Your task to perform on an android device: install app "Google Drive" Image 0: 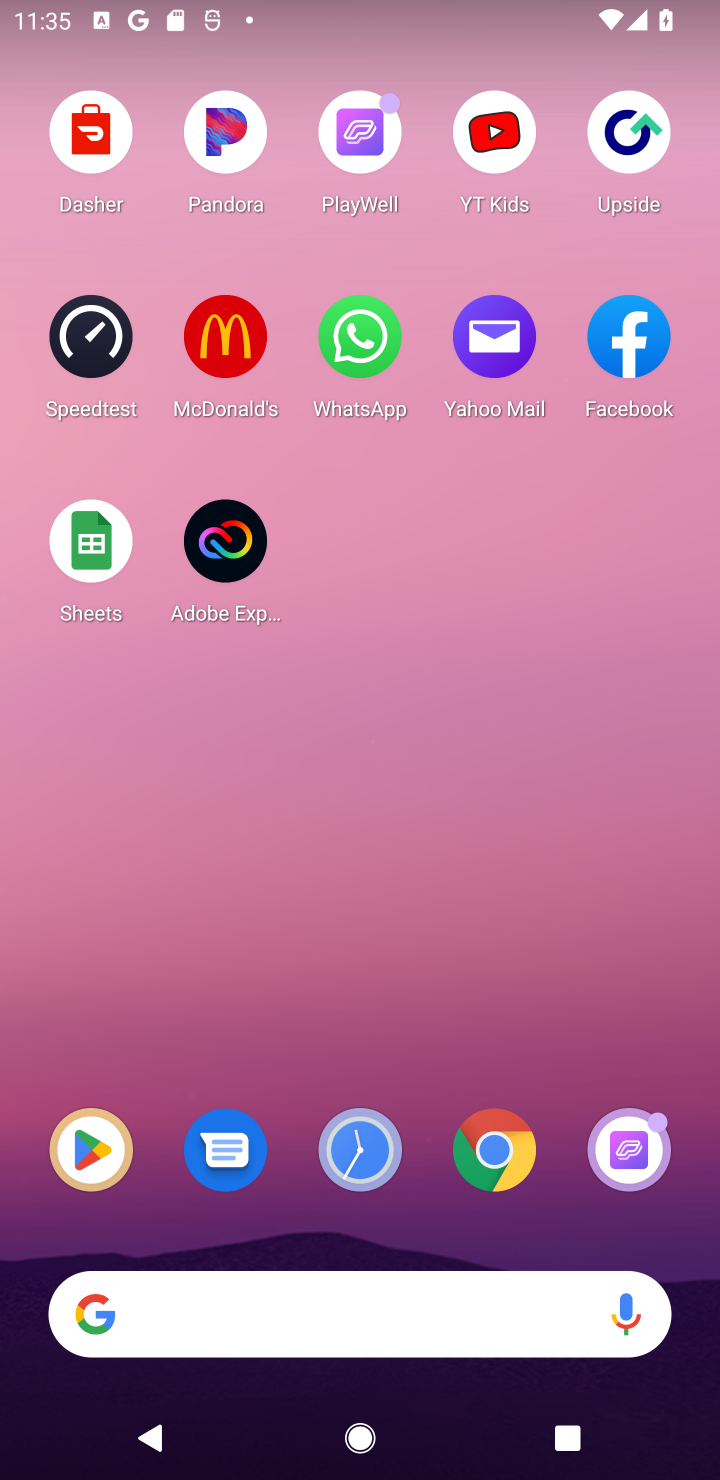
Step 0: click (99, 1159)
Your task to perform on an android device: install app "Google Drive" Image 1: 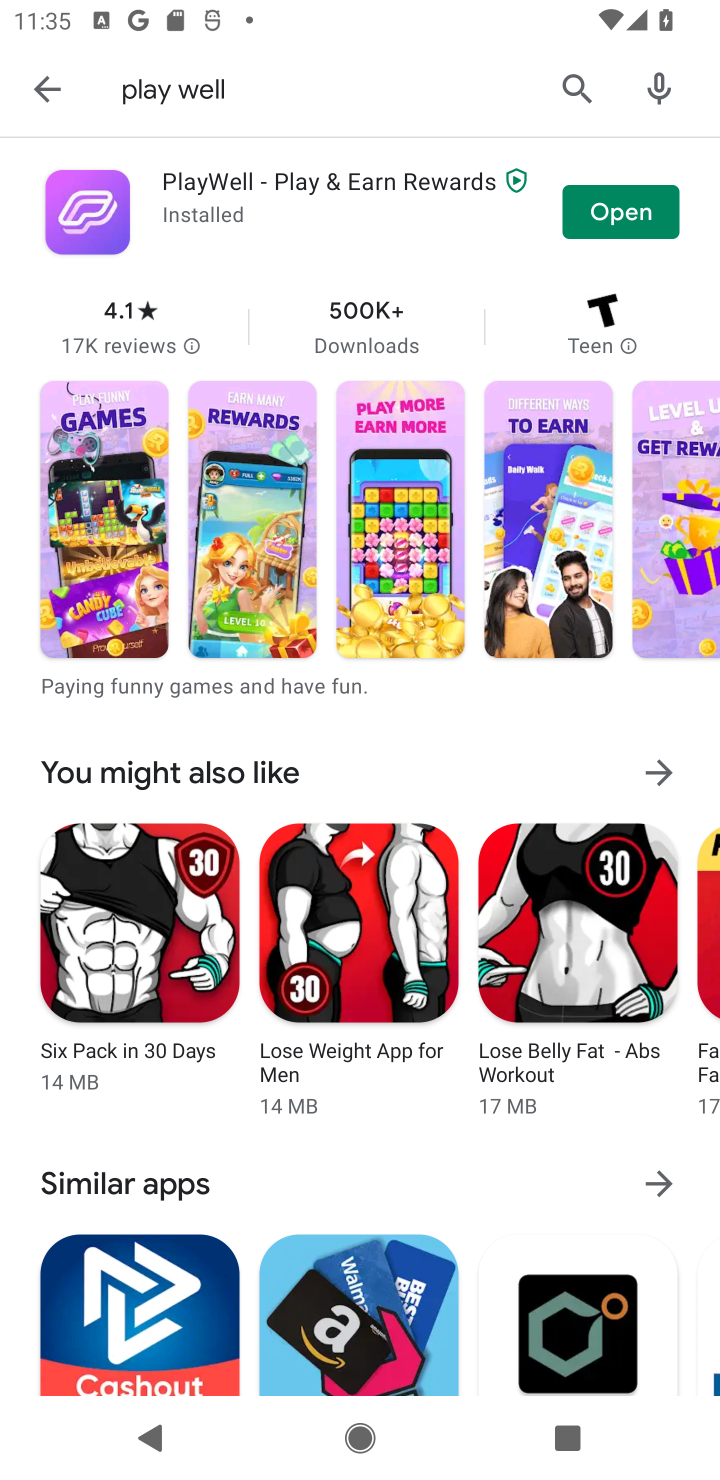
Step 1: click (593, 87)
Your task to perform on an android device: install app "Google Drive" Image 2: 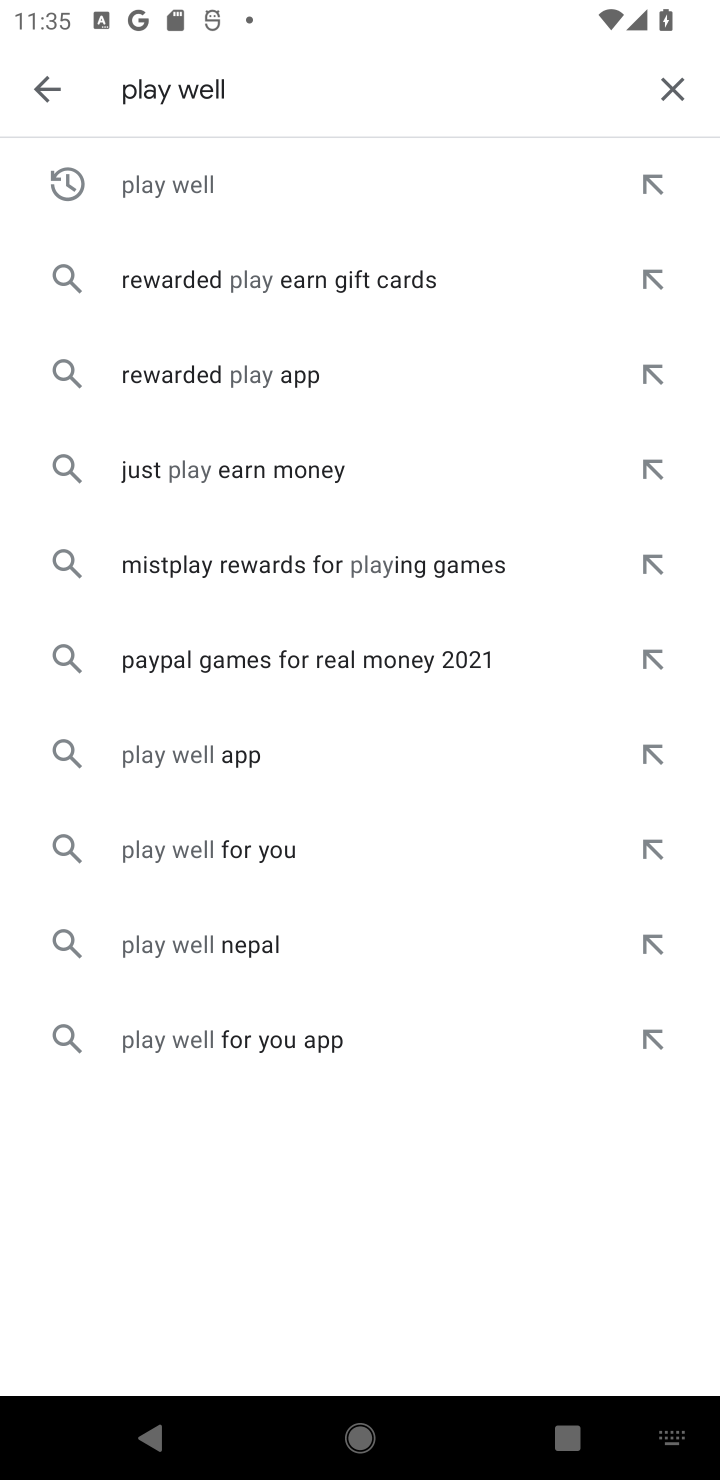
Step 2: click (659, 80)
Your task to perform on an android device: install app "Google Drive" Image 3: 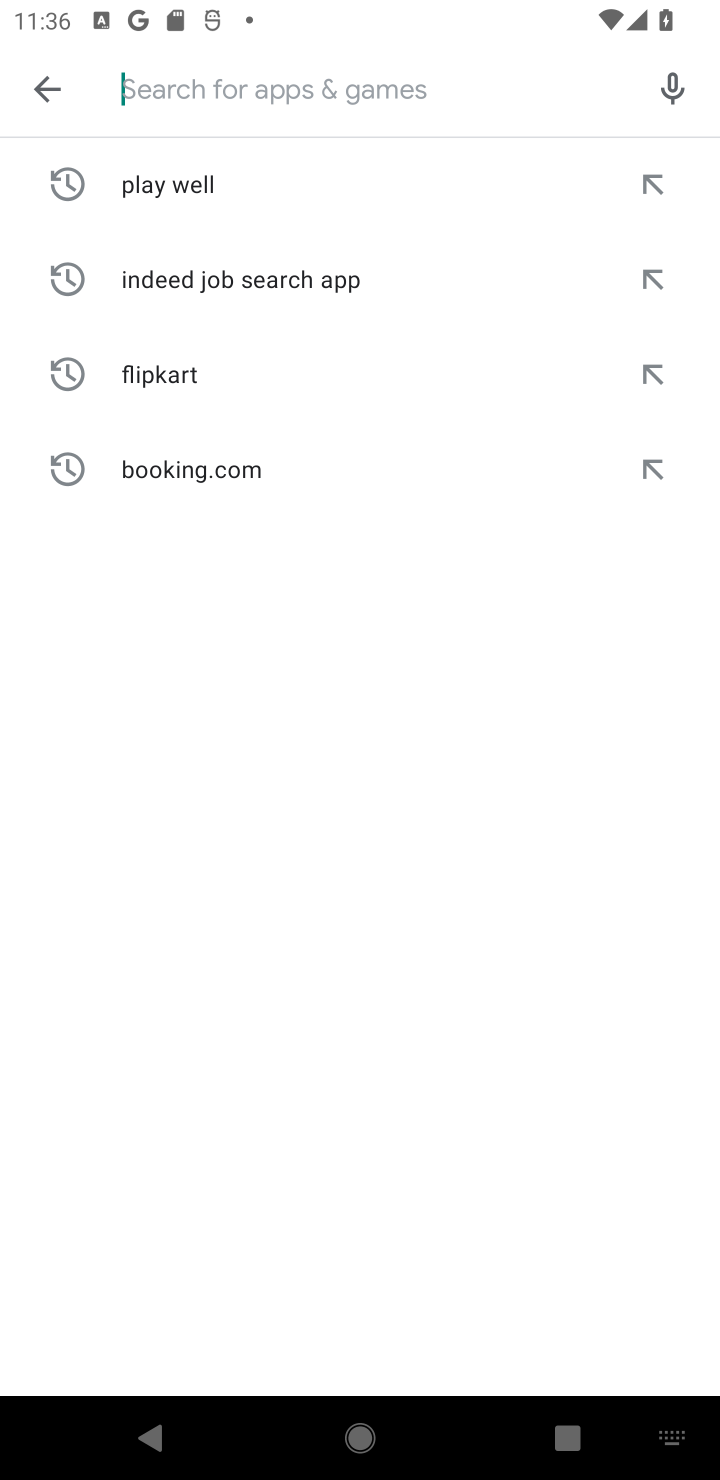
Step 3: click (340, 76)
Your task to perform on an android device: install app "Google Drive" Image 4: 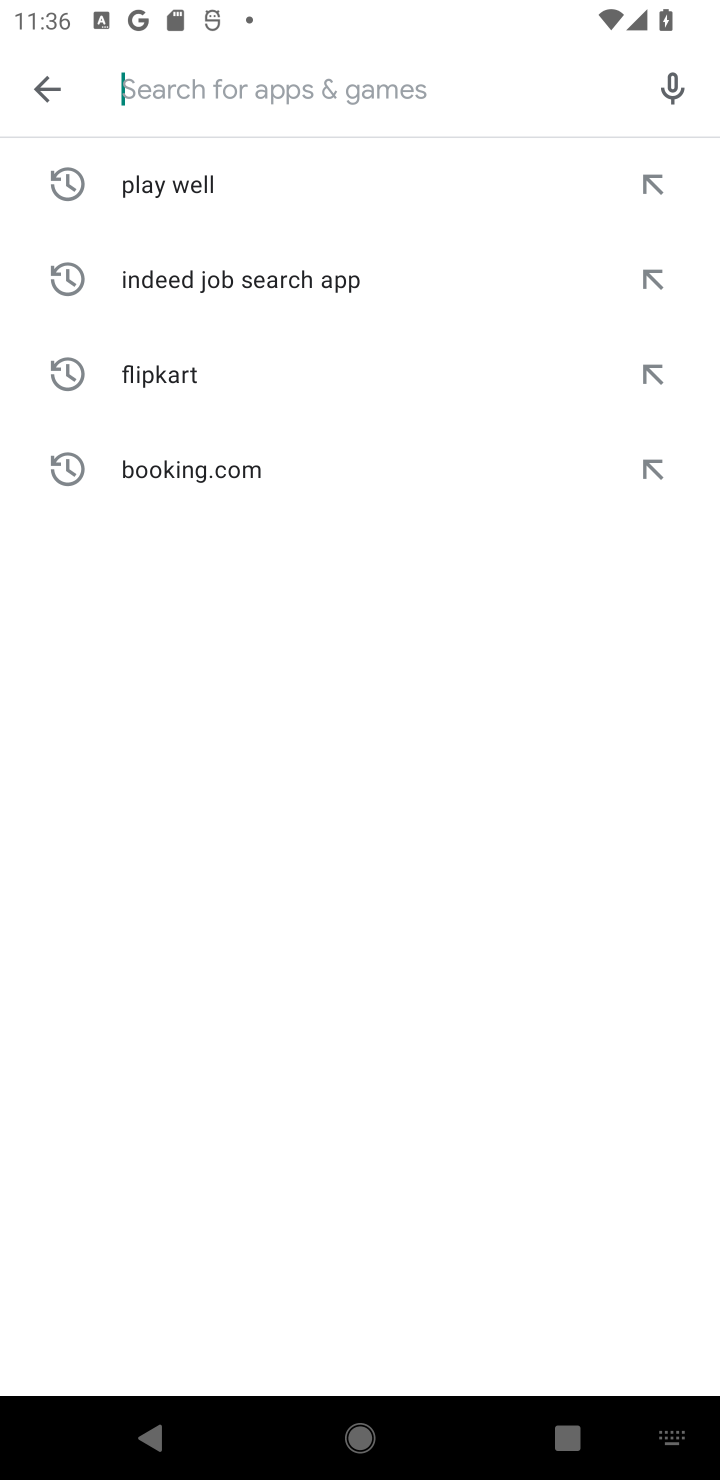
Step 4: type "google drive"
Your task to perform on an android device: install app "Google Drive" Image 5: 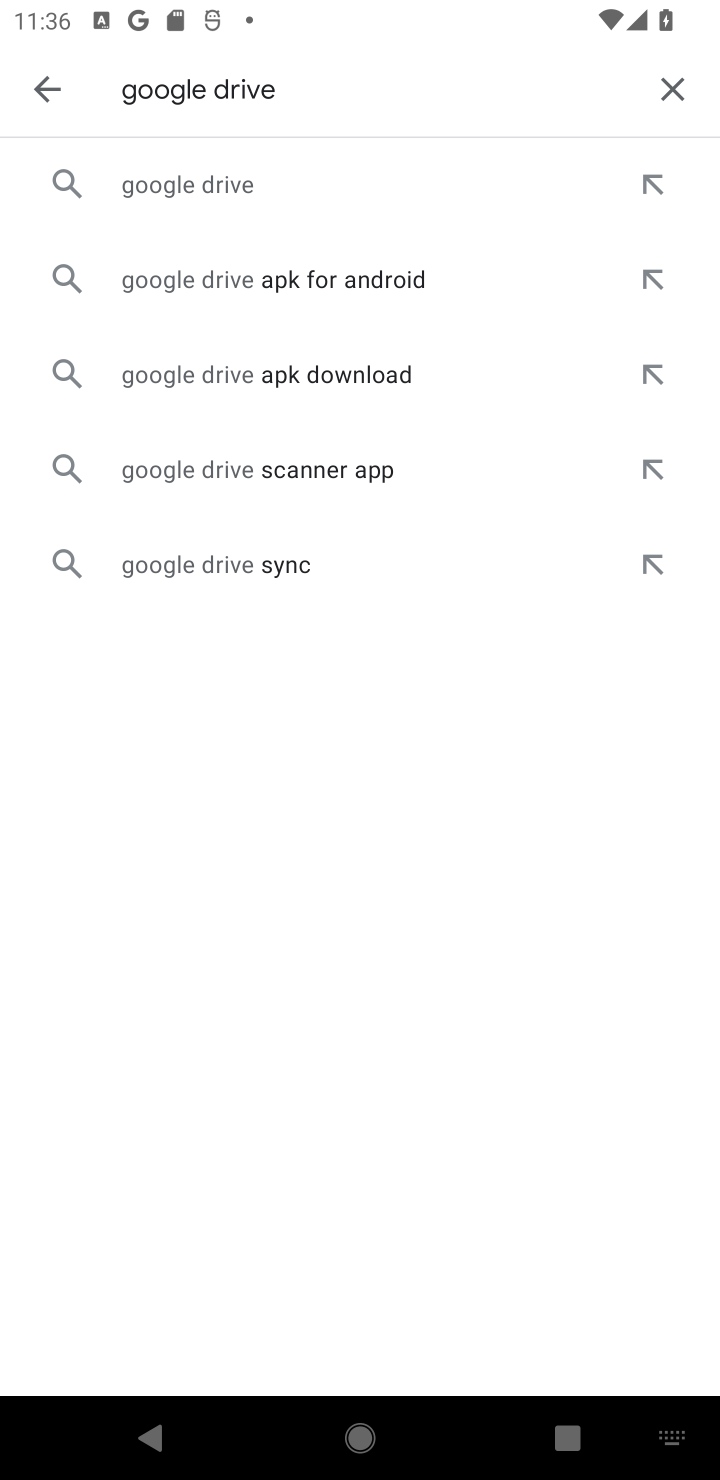
Step 5: click (271, 186)
Your task to perform on an android device: install app "Google Drive" Image 6: 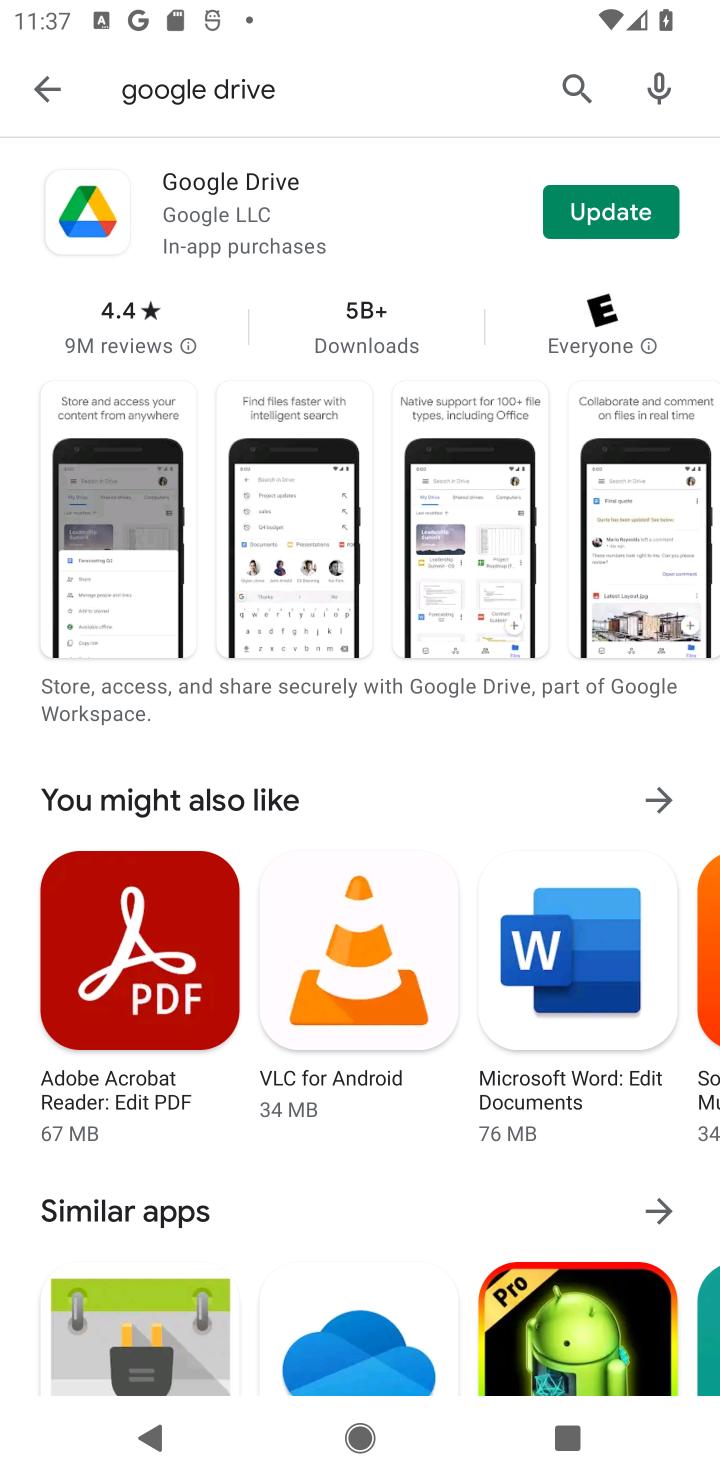
Step 6: click (216, 230)
Your task to perform on an android device: install app "Google Drive" Image 7: 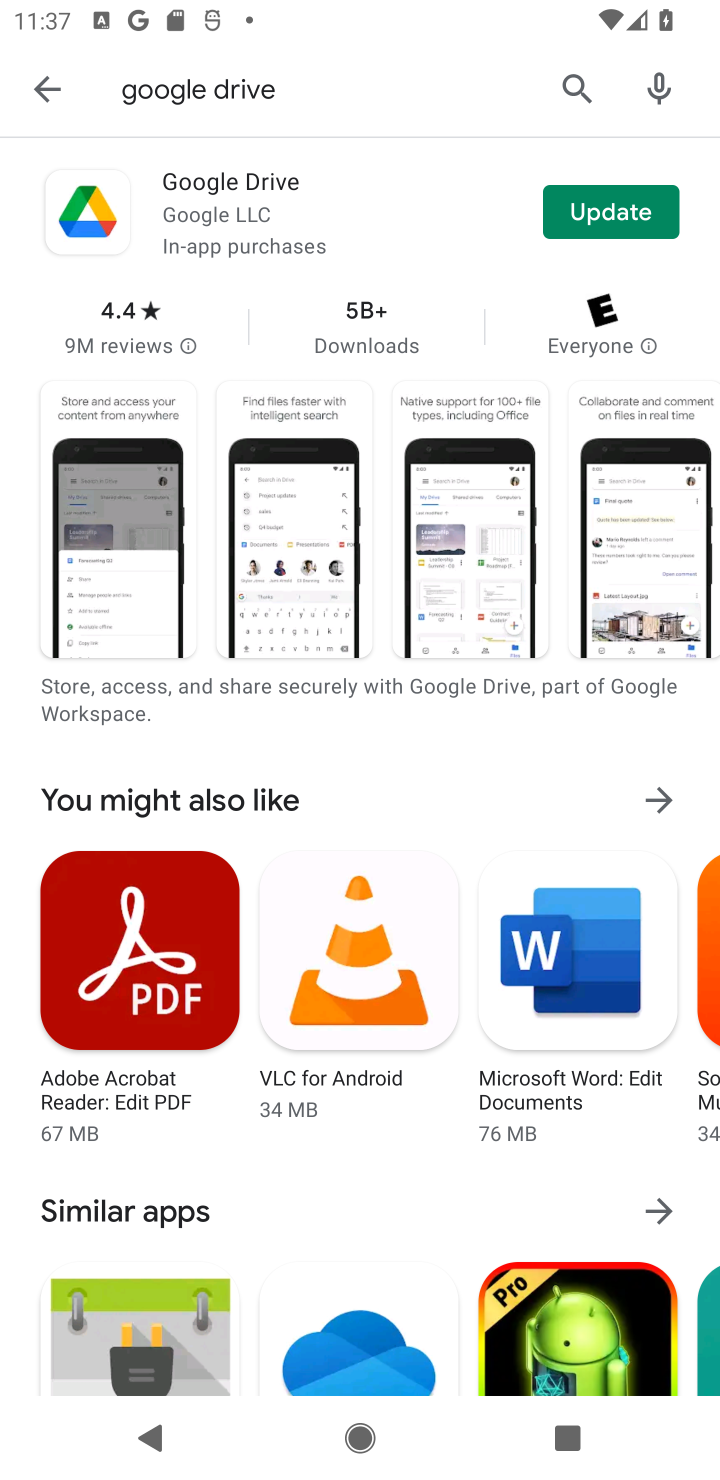
Step 7: task complete